Your task to perform on an android device: turn on the 24-hour format for clock Image 0: 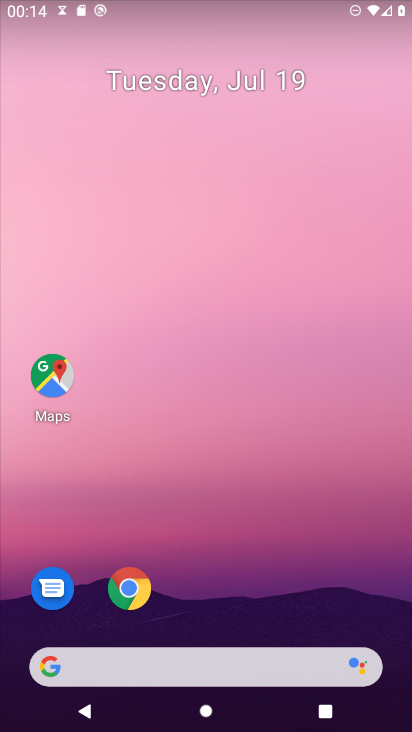
Step 0: press home button
Your task to perform on an android device: turn on the 24-hour format for clock Image 1: 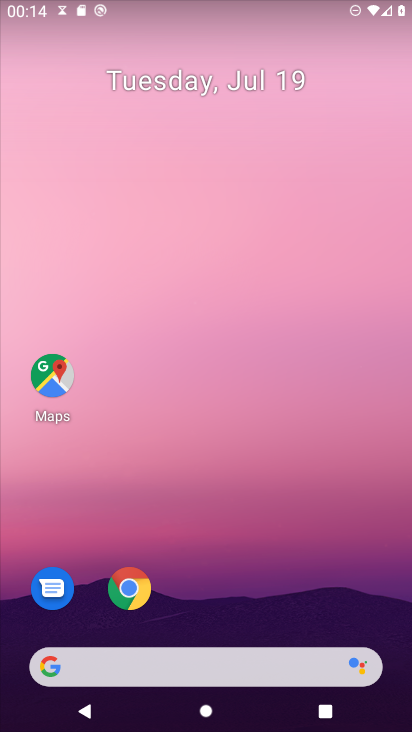
Step 1: drag from (305, 553) to (325, 181)
Your task to perform on an android device: turn on the 24-hour format for clock Image 2: 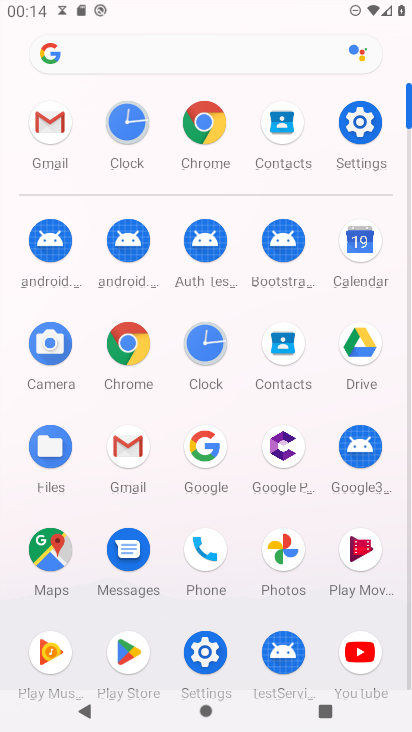
Step 2: click (208, 341)
Your task to perform on an android device: turn on the 24-hour format for clock Image 3: 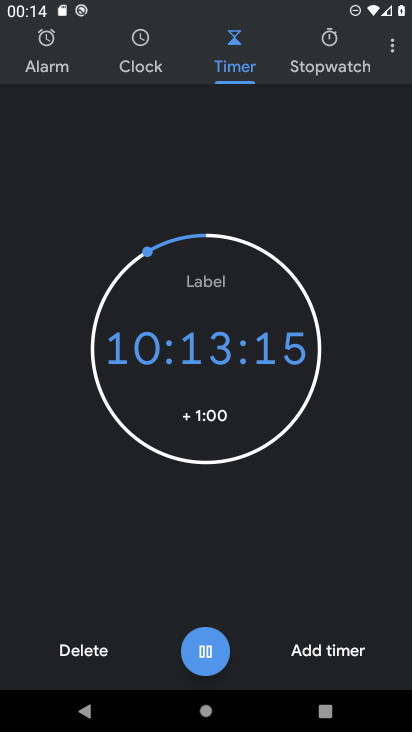
Step 3: click (394, 47)
Your task to perform on an android device: turn on the 24-hour format for clock Image 4: 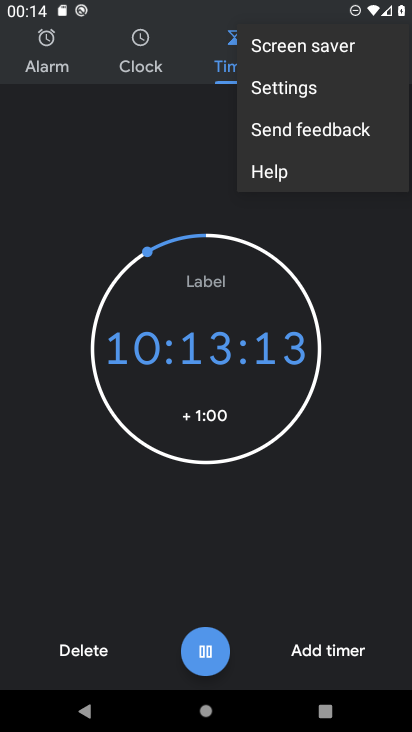
Step 4: click (303, 86)
Your task to perform on an android device: turn on the 24-hour format for clock Image 5: 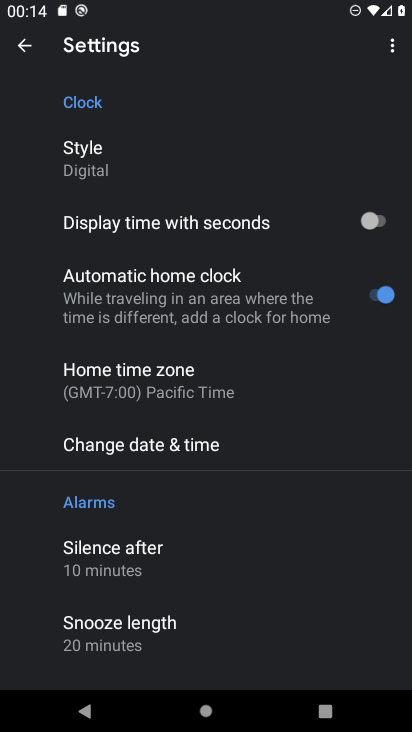
Step 5: click (145, 446)
Your task to perform on an android device: turn on the 24-hour format for clock Image 6: 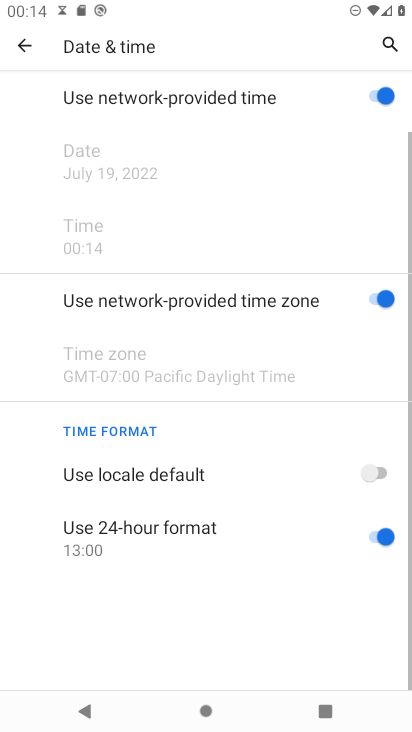
Step 6: click (380, 527)
Your task to perform on an android device: turn on the 24-hour format for clock Image 7: 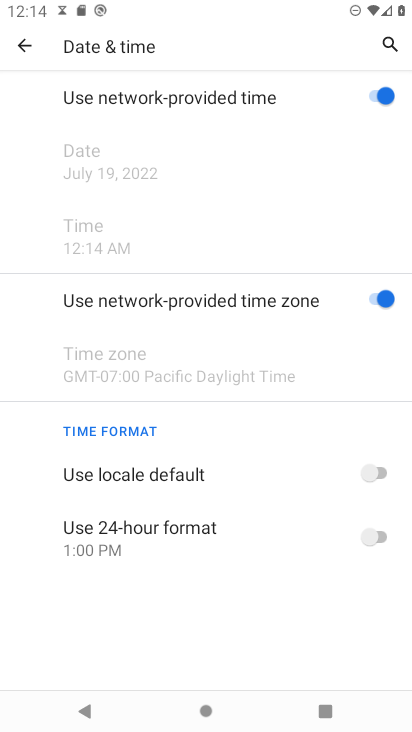
Step 7: click (386, 538)
Your task to perform on an android device: turn on the 24-hour format for clock Image 8: 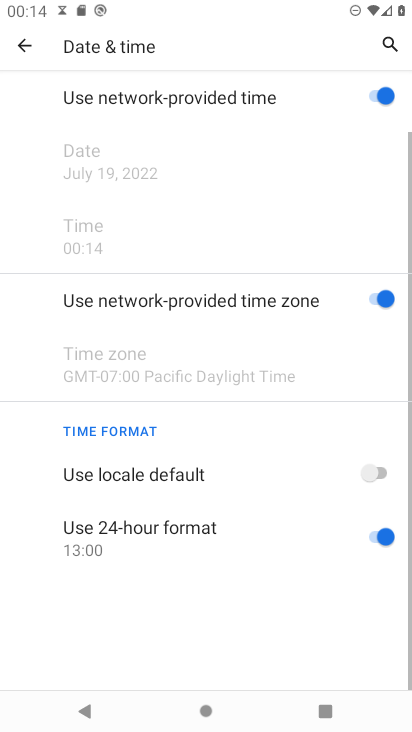
Step 8: task complete